Your task to perform on an android device: turn on airplane mode Image 0: 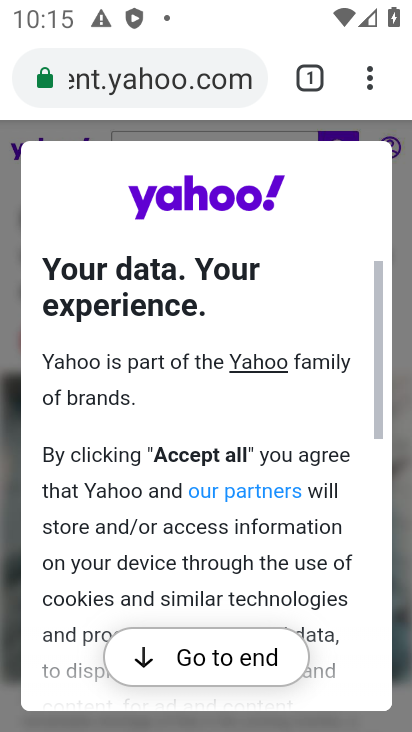
Step 0: press home button
Your task to perform on an android device: turn on airplane mode Image 1: 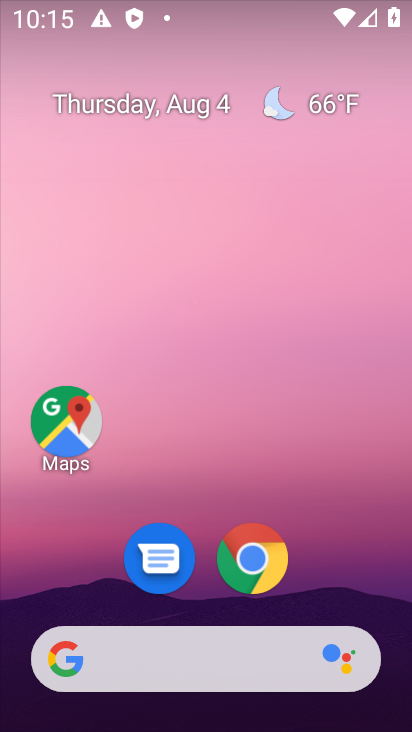
Step 1: drag from (373, 596) to (386, 103)
Your task to perform on an android device: turn on airplane mode Image 2: 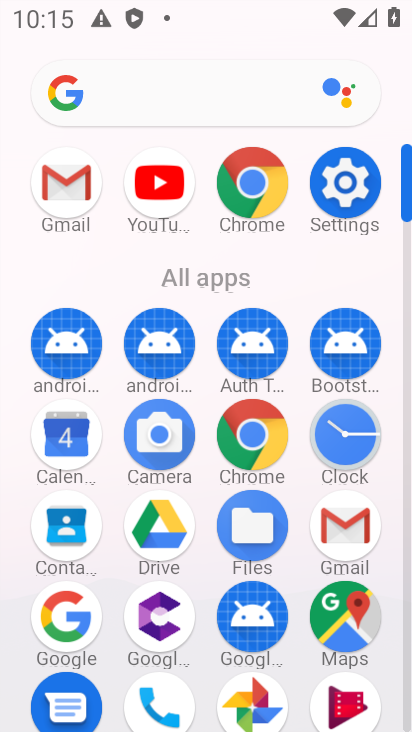
Step 2: drag from (198, 567) to (264, 189)
Your task to perform on an android device: turn on airplane mode Image 3: 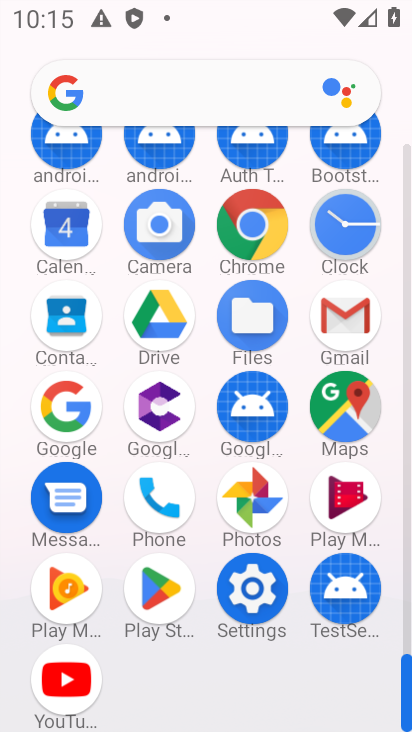
Step 3: click (257, 604)
Your task to perform on an android device: turn on airplane mode Image 4: 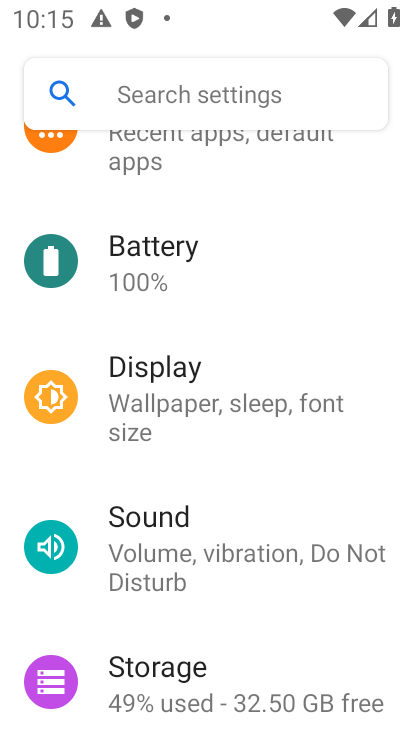
Step 4: drag from (360, 242) to (323, 646)
Your task to perform on an android device: turn on airplane mode Image 5: 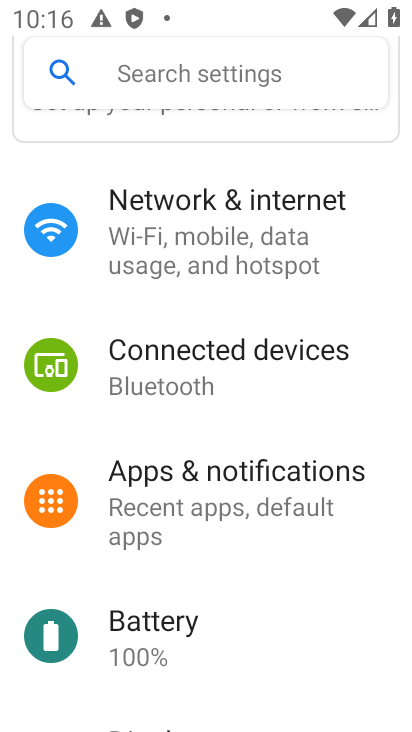
Step 5: click (252, 232)
Your task to perform on an android device: turn on airplane mode Image 6: 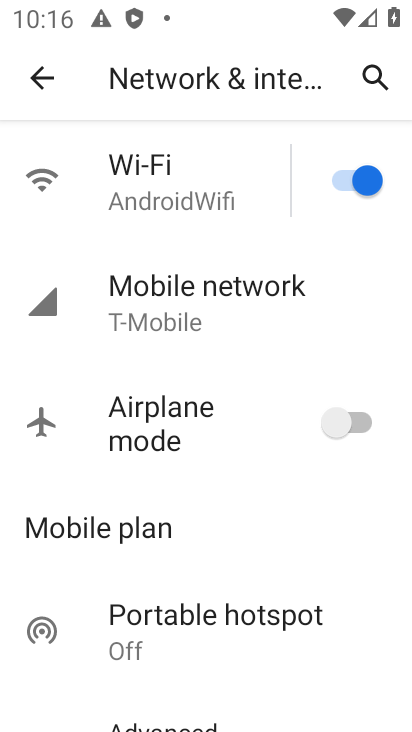
Step 6: click (350, 435)
Your task to perform on an android device: turn on airplane mode Image 7: 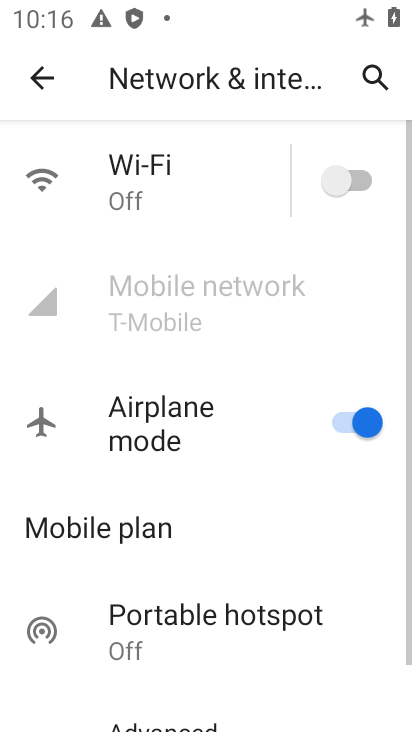
Step 7: task complete